Your task to perform on an android device: delete browsing data in the chrome app Image 0: 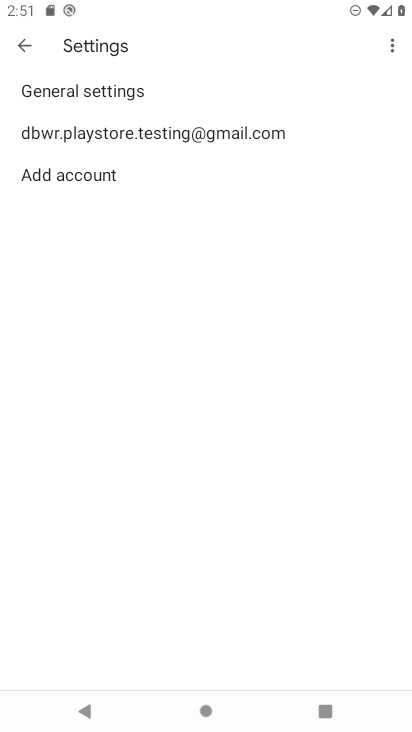
Step 0: click (29, 30)
Your task to perform on an android device: delete browsing data in the chrome app Image 1: 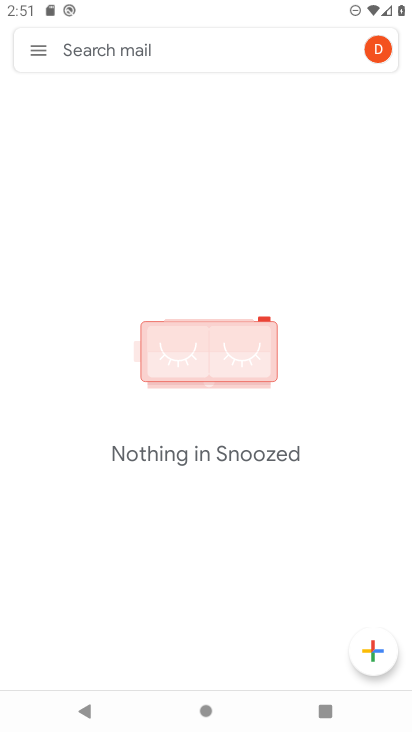
Step 1: press home button
Your task to perform on an android device: delete browsing data in the chrome app Image 2: 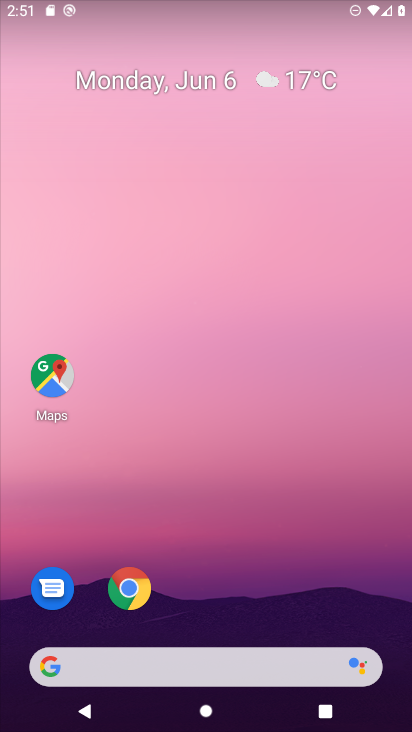
Step 2: click (131, 600)
Your task to perform on an android device: delete browsing data in the chrome app Image 3: 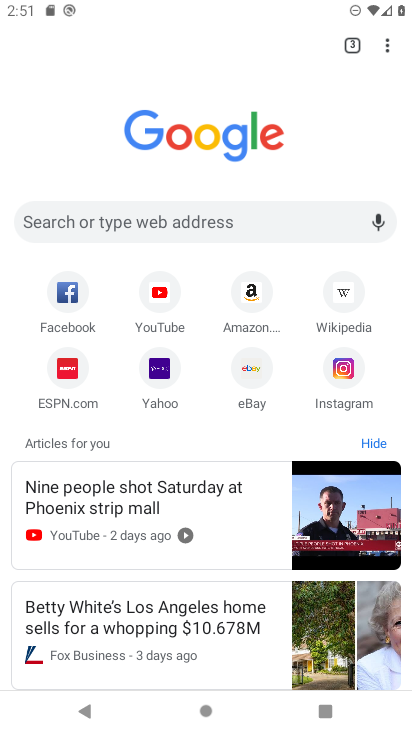
Step 3: click (389, 37)
Your task to perform on an android device: delete browsing data in the chrome app Image 4: 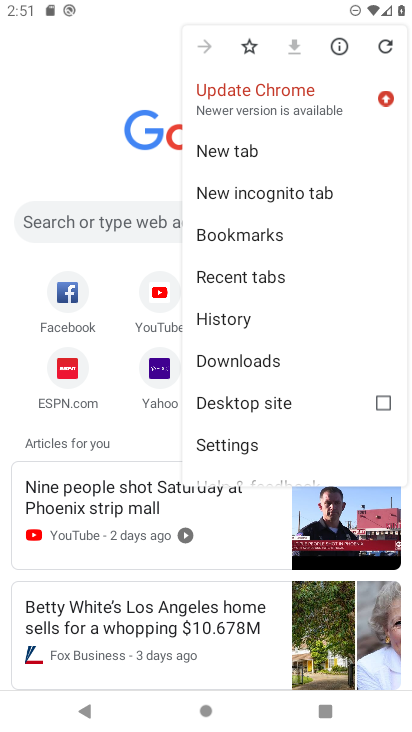
Step 4: click (266, 326)
Your task to perform on an android device: delete browsing data in the chrome app Image 5: 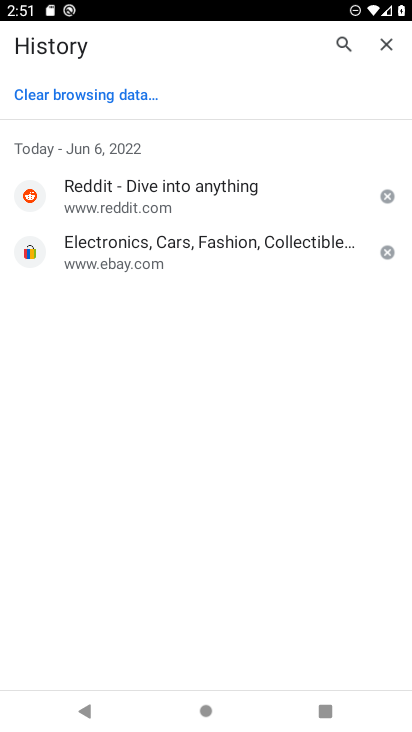
Step 5: click (131, 101)
Your task to perform on an android device: delete browsing data in the chrome app Image 6: 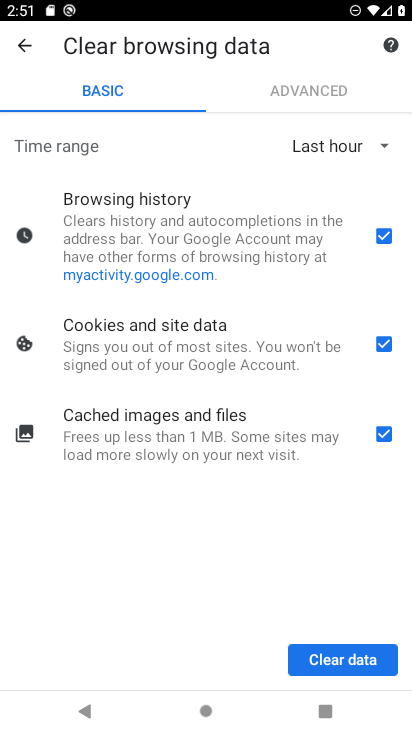
Step 6: click (353, 665)
Your task to perform on an android device: delete browsing data in the chrome app Image 7: 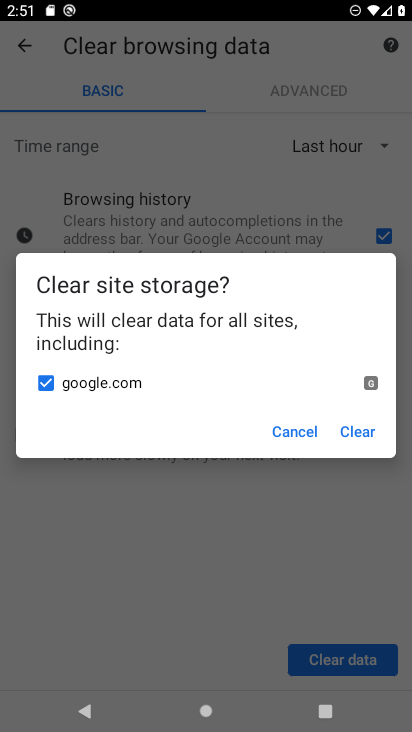
Step 7: click (355, 428)
Your task to perform on an android device: delete browsing data in the chrome app Image 8: 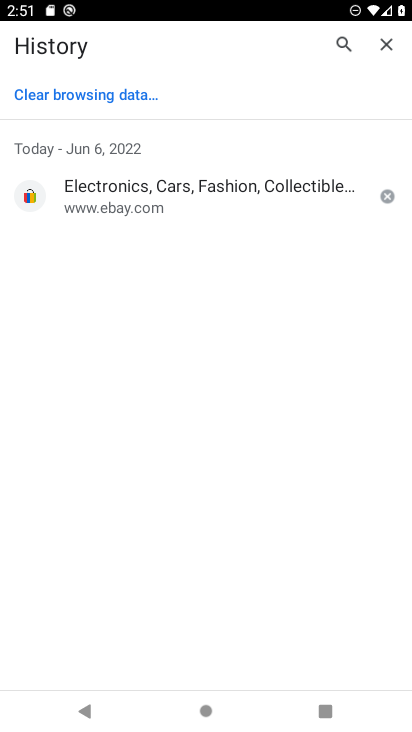
Step 8: task complete